Your task to perform on an android device: show emergency info Image 0: 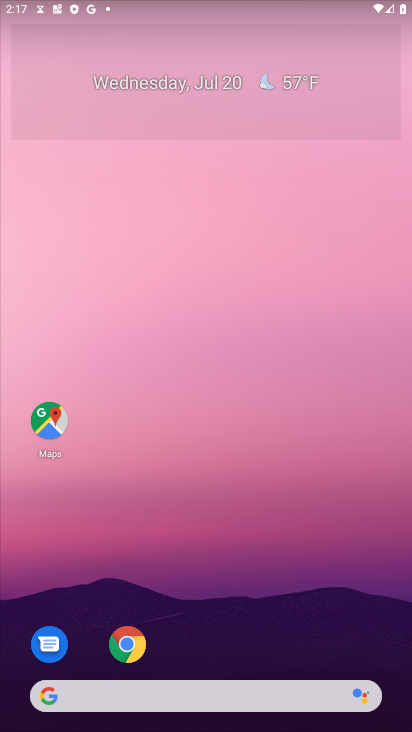
Step 0: drag from (225, 619) to (249, 2)
Your task to perform on an android device: show emergency info Image 1: 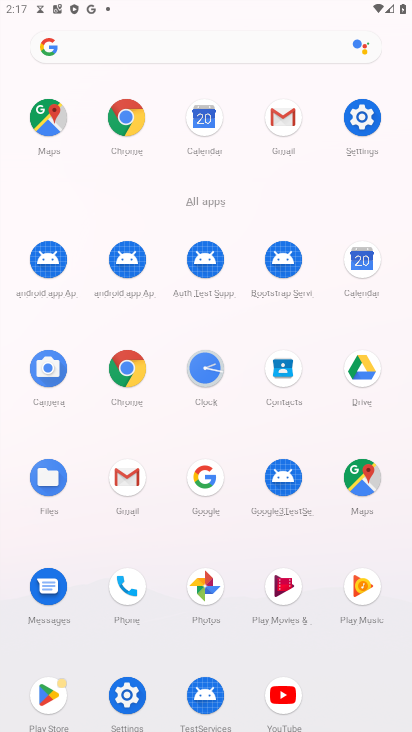
Step 1: click (374, 112)
Your task to perform on an android device: show emergency info Image 2: 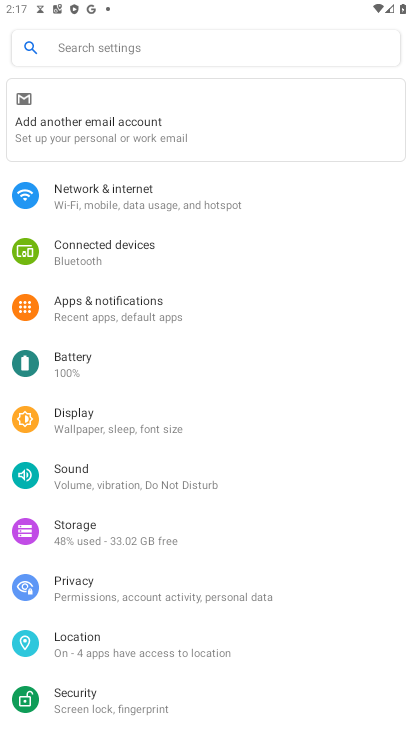
Step 2: drag from (256, 597) to (242, 90)
Your task to perform on an android device: show emergency info Image 3: 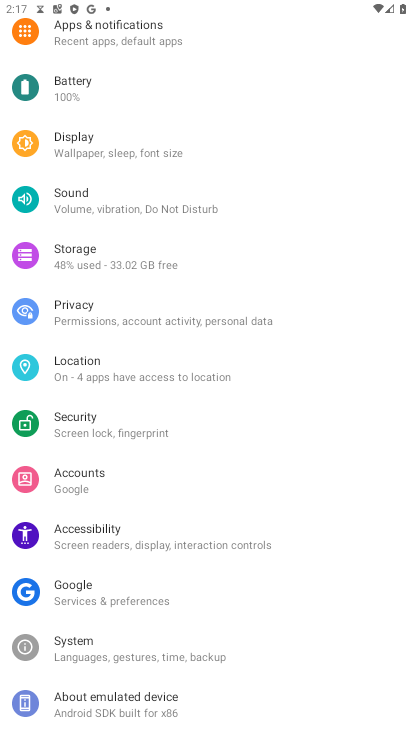
Step 3: click (133, 706)
Your task to perform on an android device: show emergency info Image 4: 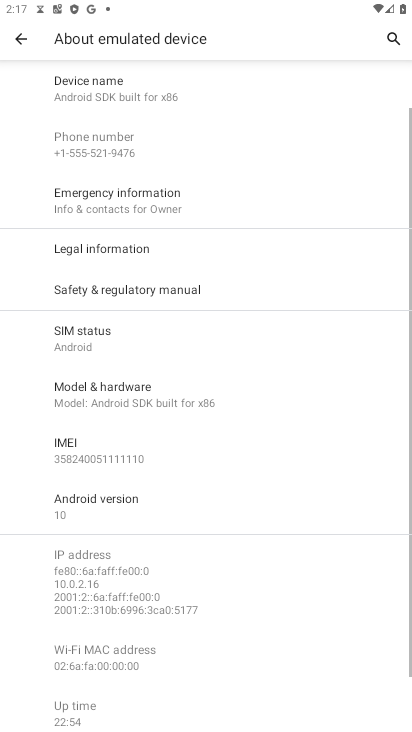
Step 4: click (120, 187)
Your task to perform on an android device: show emergency info Image 5: 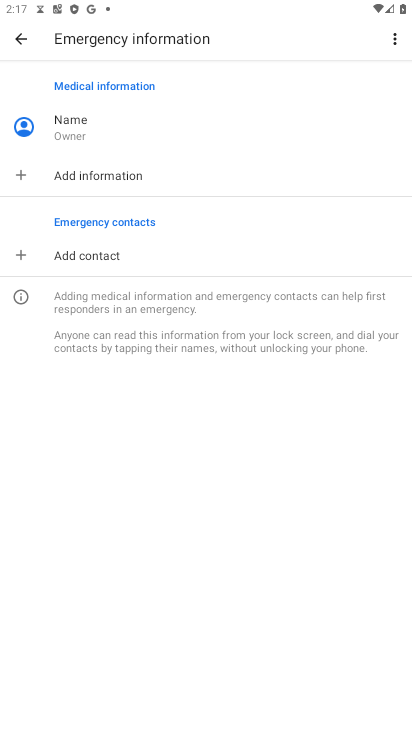
Step 5: task complete